Your task to perform on an android device: Search for sushi restaurants on Maps Image 0: 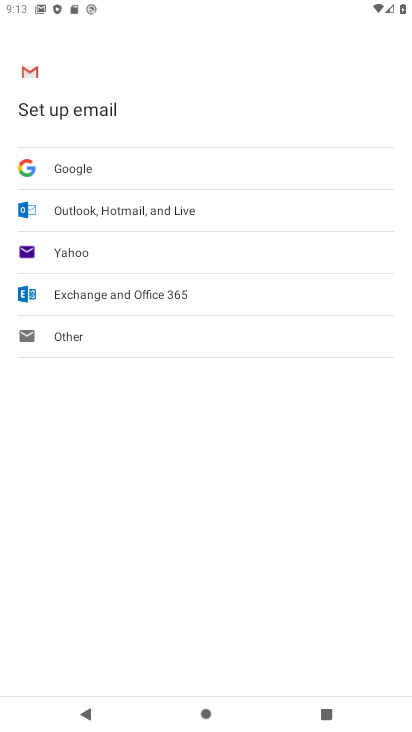
Step 0: task complete